Your task to perform on an android device: delete the emails in spam in the gmail app Image 0: 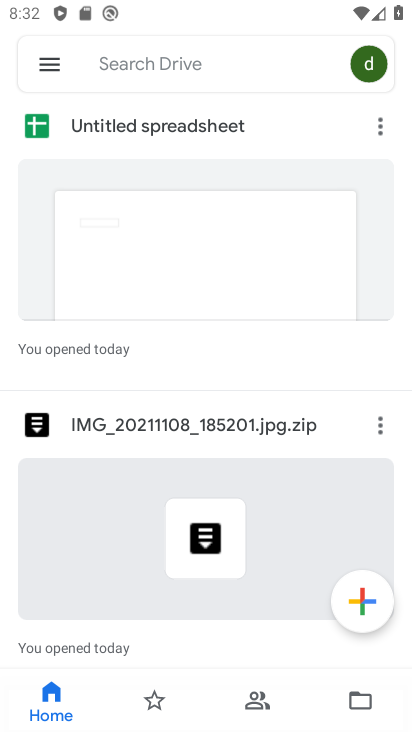
Step 0: press home button
Your task to perform on an android device: delete the emails in spam in the gmail app Image 1: 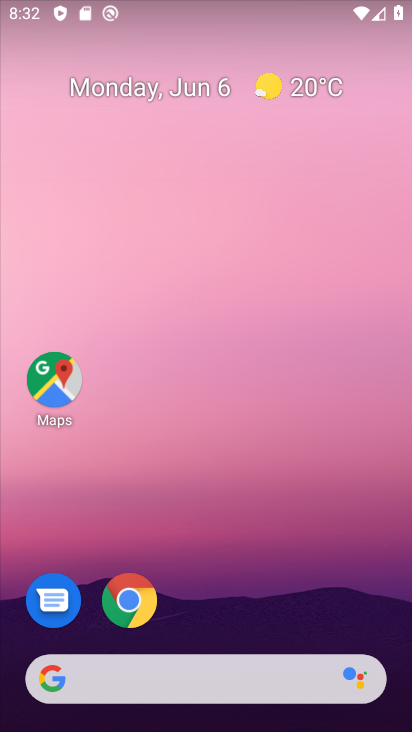
Step 1: drag from (47, 504) to (263, 171)
Your task to perform on an android device: delete the emails in spam in the gmail app Image 2: 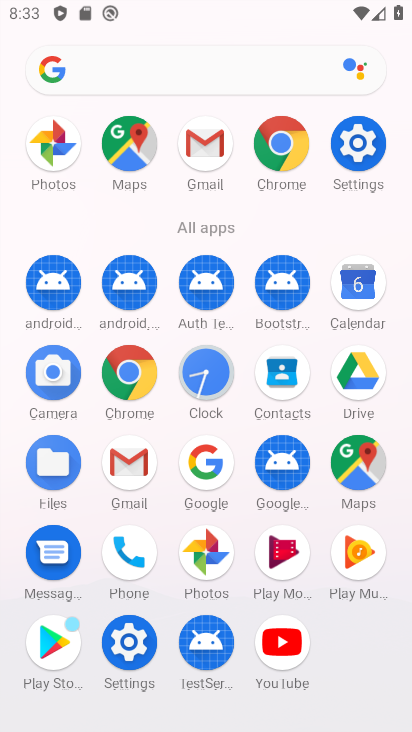
Step 2: click (116, 466)
Your task to perform on an android device: delete the emails in spam in the gmail app Image 3: 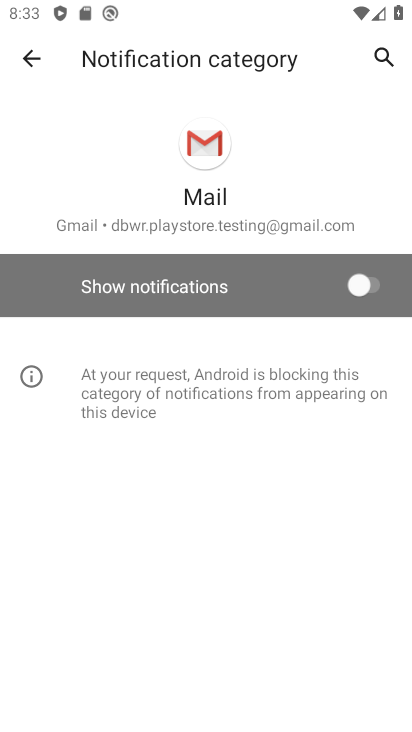
Step 3: click (36, 56)
Your task to perform on an android device: delete the emails in spam in the gmail app Image 4: 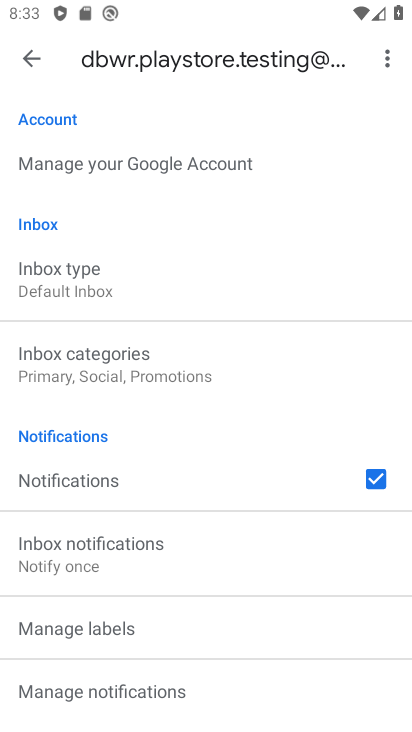
Step 4: click (36, 56)
Your task to perform on an android device: delete the emails in spam in the gmail app Image 5: 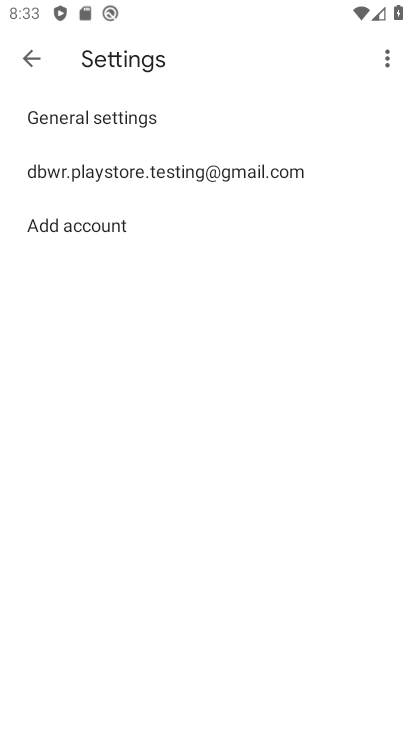
Step 5: click (36, 56)
Your task to perform on an android device: delete the emails in spam in the gmail app Image 6: 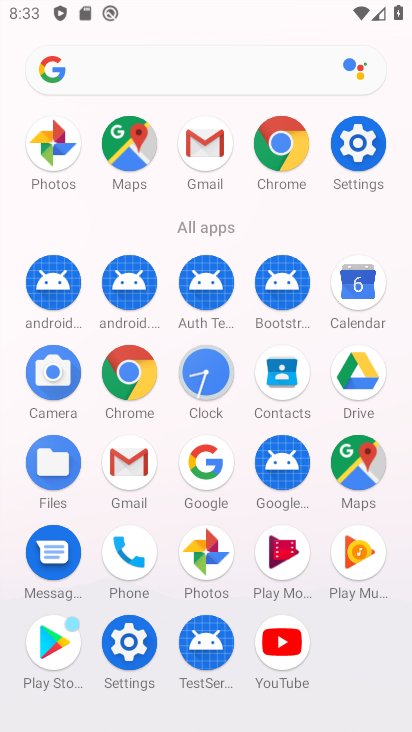
Step 6: click (143, 449)
Your task to perform on an android device: delete the emails in spam in the gmail app Image 7: 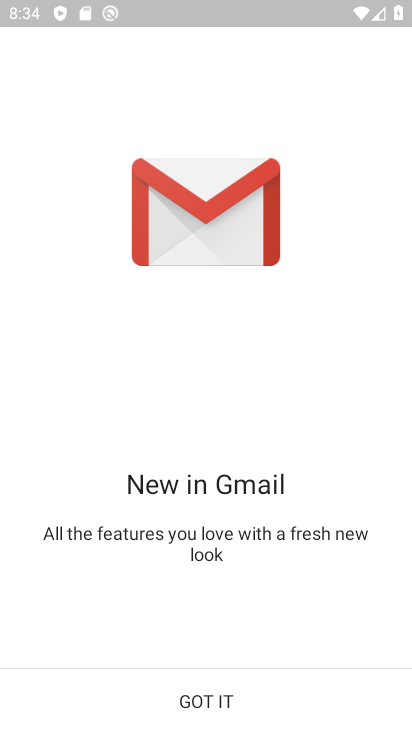
Step 7: click (293, 708)
Your task to perform on an android device: delete the emails in spam in the gmail app Image 8: 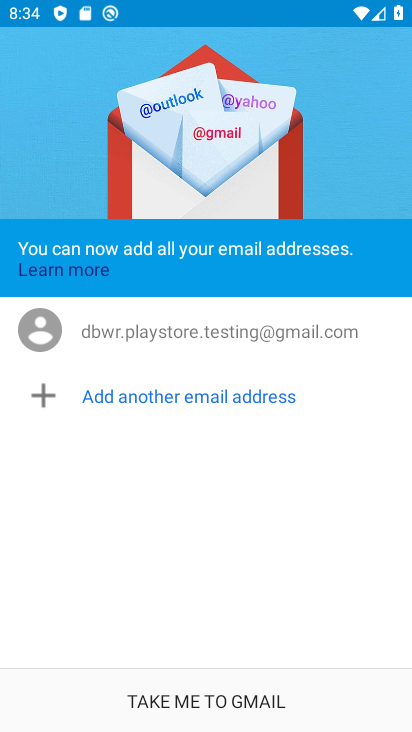
Step 8: click (258, 695)
Your task to perform on an android device: delete the emails in spam in the gmail app Image 9: 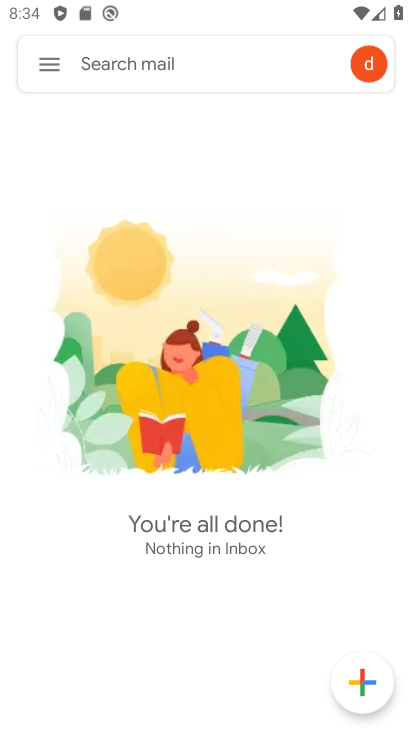
Step 9: click (60, 68)
Your task to perform on an android device: delete the emails in spam in the gmail app Image 10: 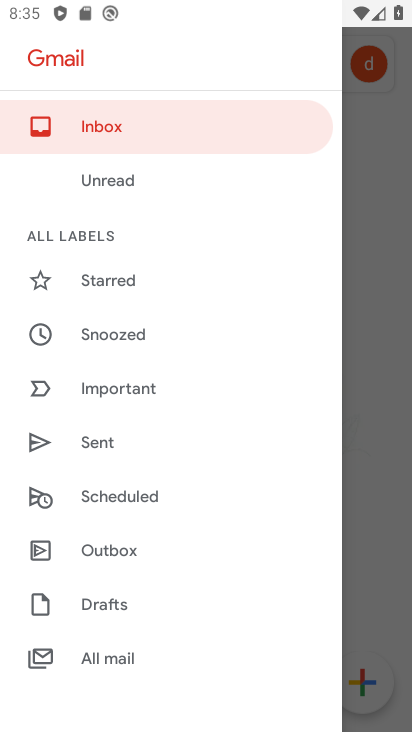
Step 10: drag from (18, 535) to (265, 109)
Your task to perform on an android device: delete the emails in spam in the gmail app Image 11: 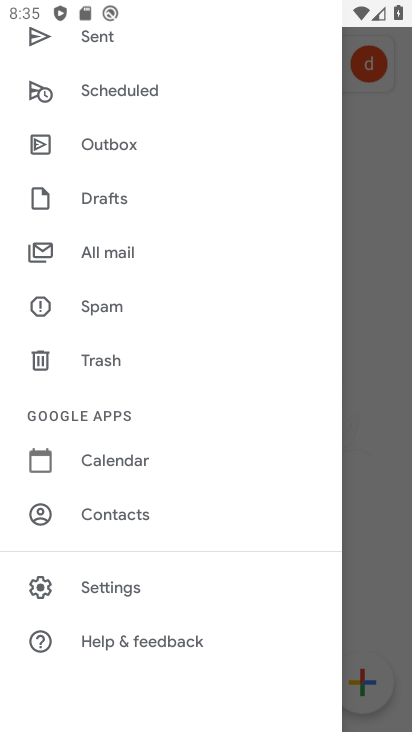
Step 11: click (88, 316)
Your task to perform on an android device: delete the emails in spam in the gmail app Image 12: 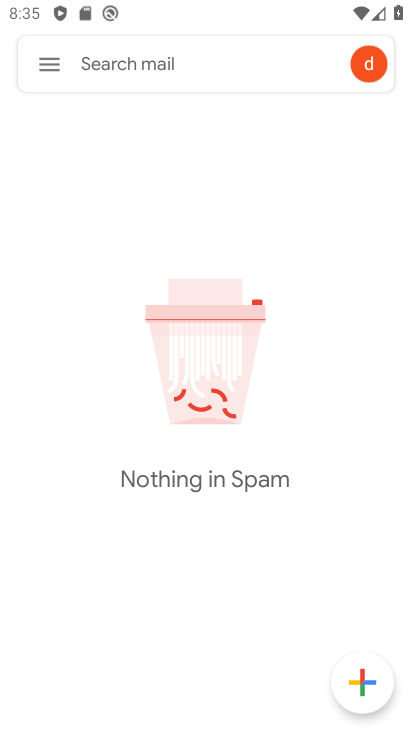
Step 12: task complete